Your task to perform on an android device: allow notifications from all sites in the chrome app Image 0: 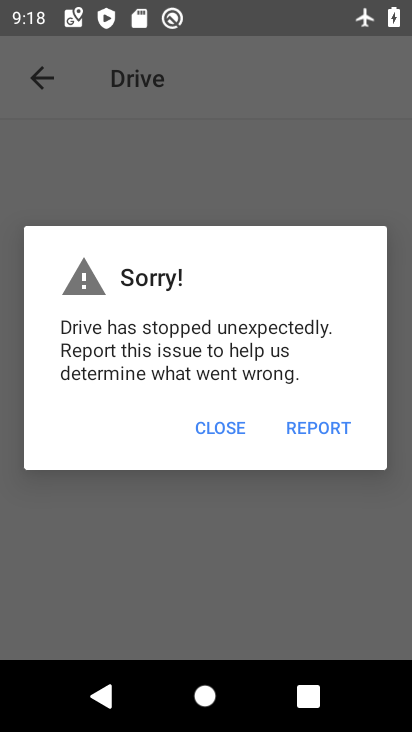
Step 0: click (230, 420)
Your task to perform on an android device: allow notifications from all sites in the chrome app Image 1: 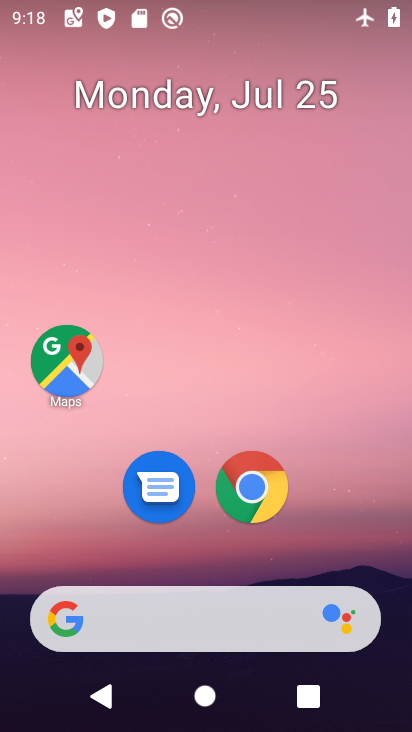
Step 1: click (227, 486)
Your task to perform on an android device: allow notifications from all sites in the chrome app Image 2: 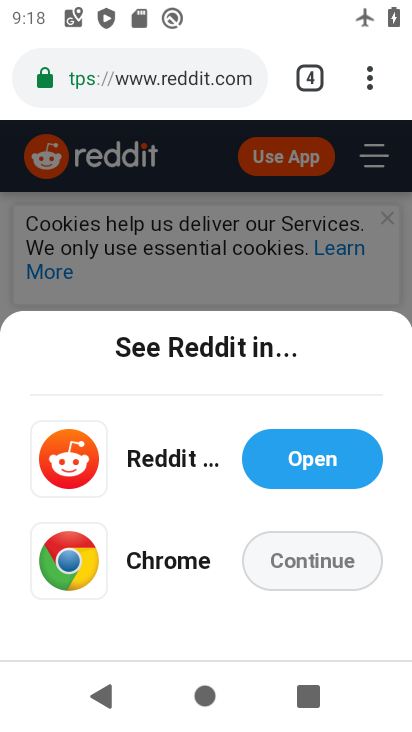
Step 2: drag from (370, 77) to (114, 548)
Your task to perform on an android device: allow notifications from all sites in the chrome app Image 3: 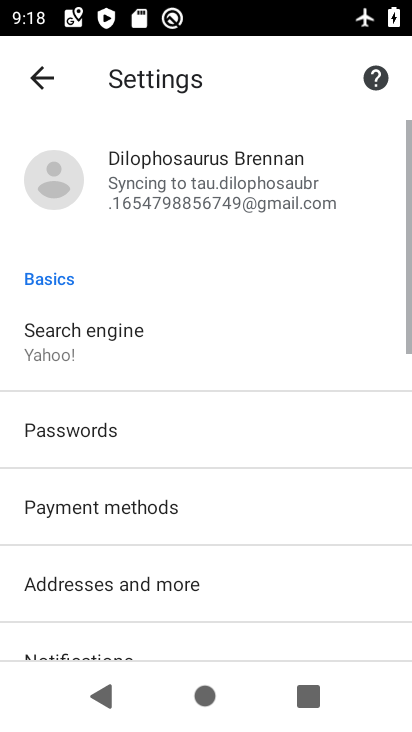
Step 3: drag from (120, 605) to (260, 135)
Your task to perform on an android device: allow notifications from all sites in the chrome app Image 4: 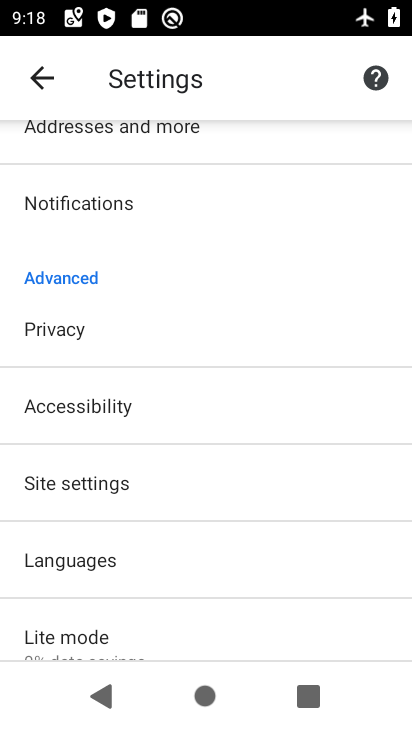
Step 4: click (110, 480)
Your task to perform on an android device: allow notifications from all sites in the chrome app Image 5: 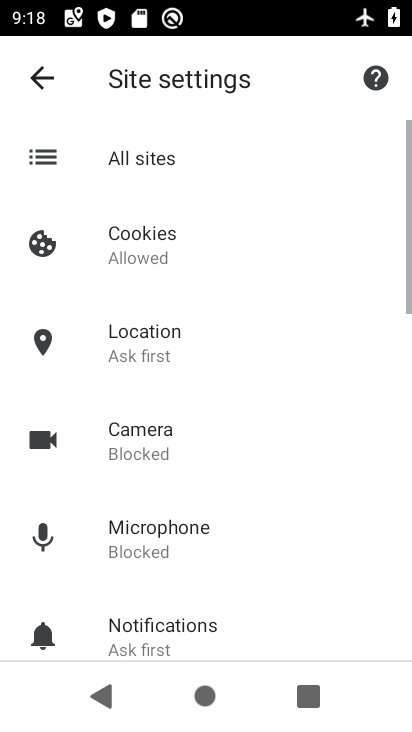
Step 5: click (38, 71)
Your task to perform on an android device: allow notifications from all sites in the chrome app Image 6: 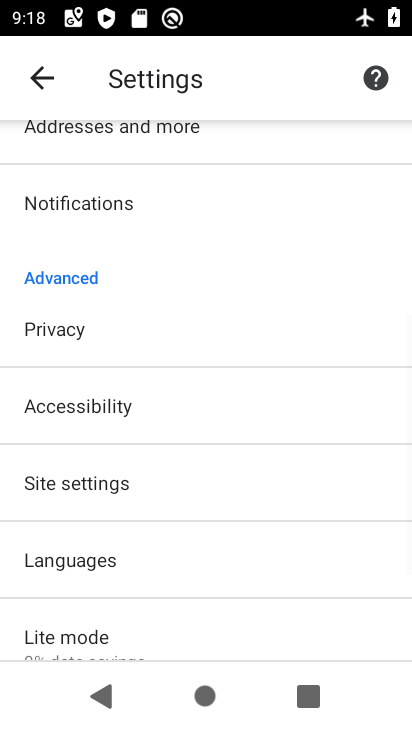
Step 6: click (81, 222)
Your task to perform on an android device: allow notifications from all sites in the chrome app Image 7: 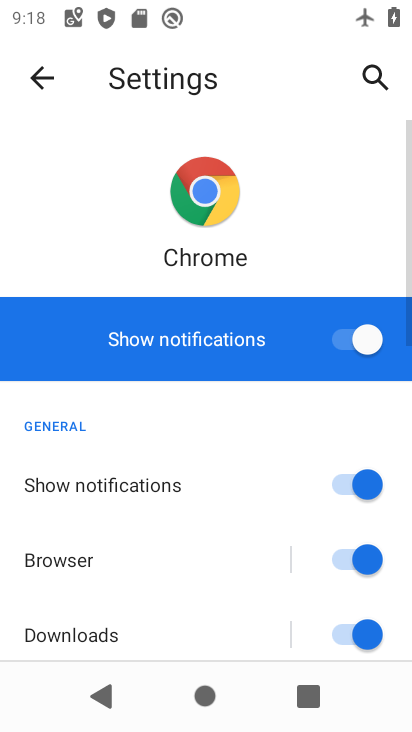
Step 7: task complete